Your task to perform on an android device: change text size in settings app Image 0: 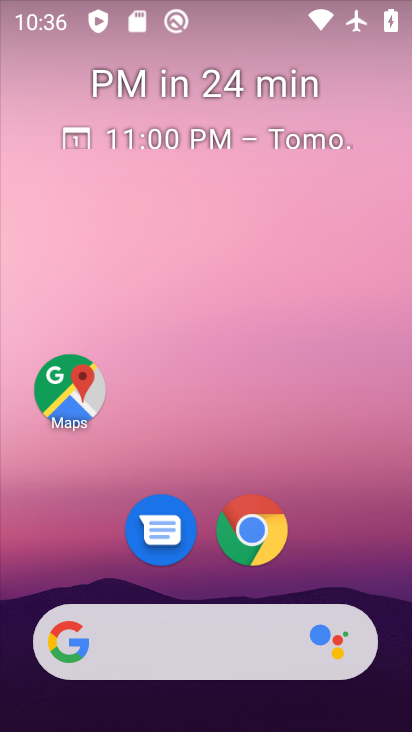
Step 0: drag from (354, 581) to (161, 67)
Your task to perform on an android device: change text size in settings app Image 1: 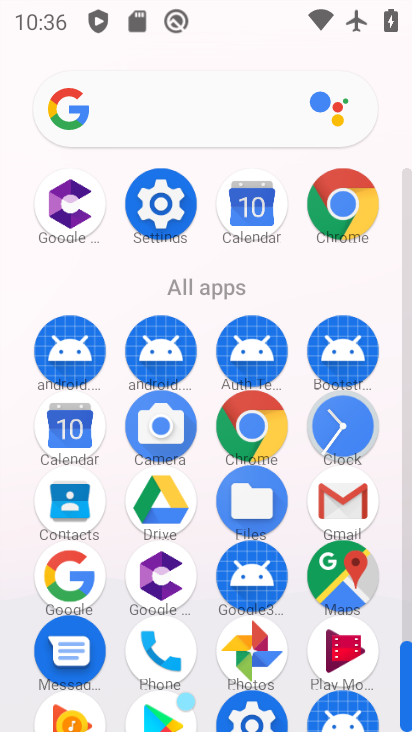
Step 1: click (160, 198)
Your task to perform on an android device: change text size in settings app Image 2: 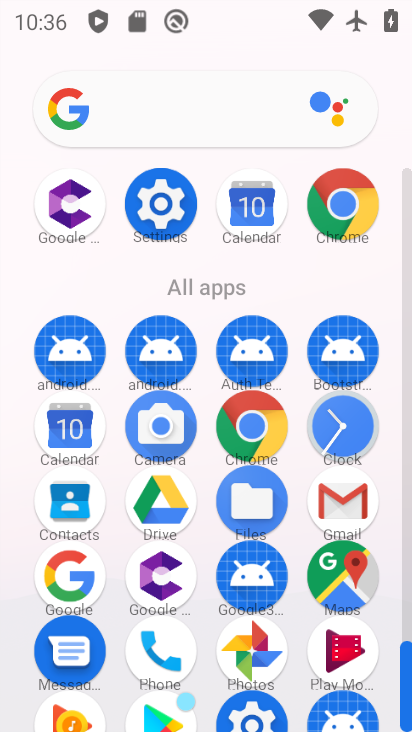
Step 2: click (160, 198)
Your task to perform on an android device: change text size in settings app Image 3: 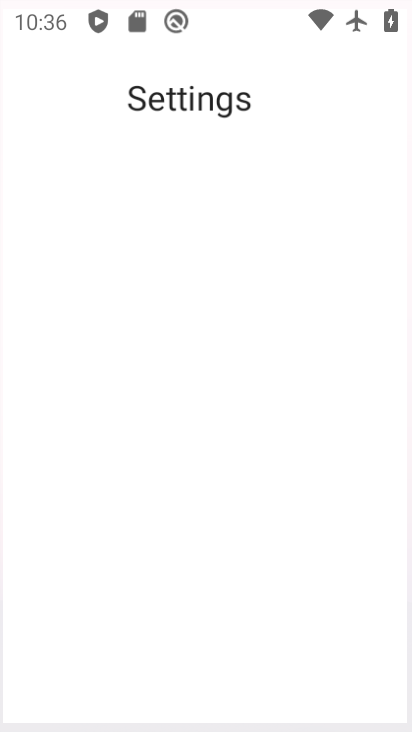
Step 3: click (159, 198)
Your task to perform on an android device: change text size in settings app Image 4: 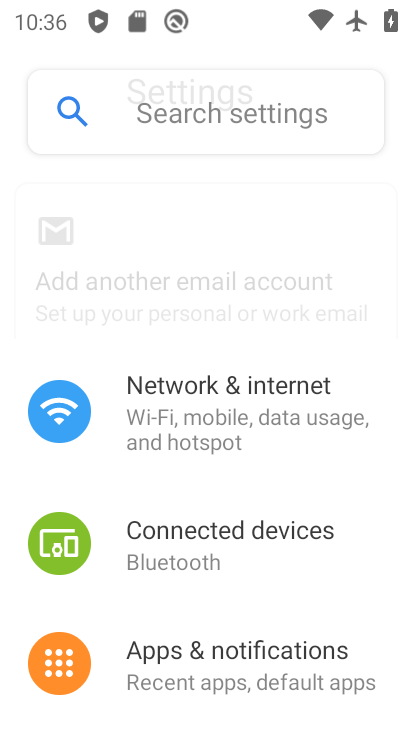
Step 4: click (159, 198)
Your task to perform on an android device: change text size in settings app Image 5: 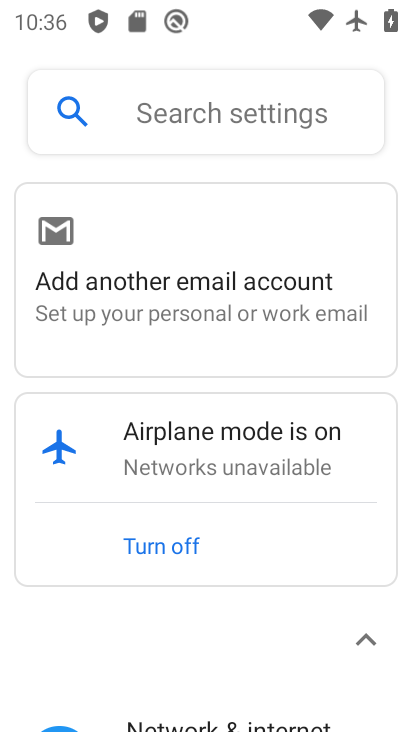
Step 5: drag from (282, 628) to (230, 203)
Your task to perform on an android device: change text size in settings app Image 6: 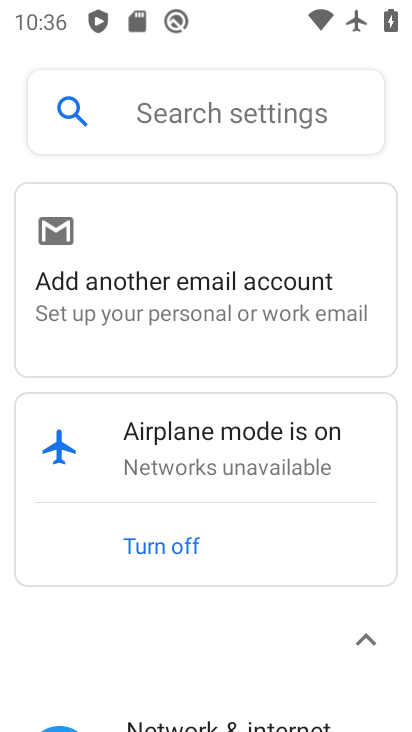
Step 6: drag from (249, 576) to (196, 208)
Your task to perform on an android device: change text size in settings app Image 7: 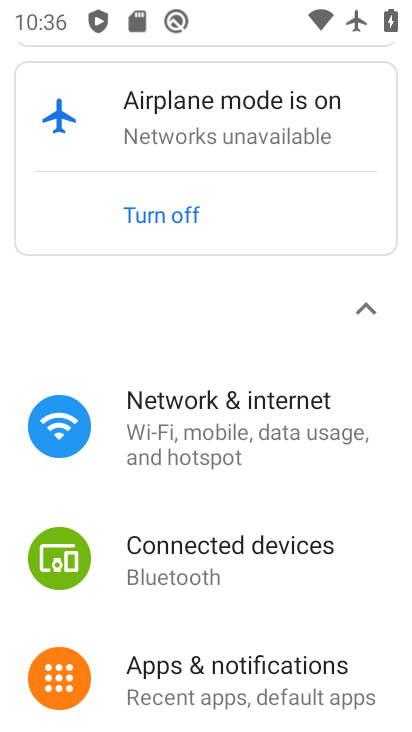
Step 7: drag from (248, 633) to (187, 241)
Your task to perform on an android device: change text size in settings app Image 8: 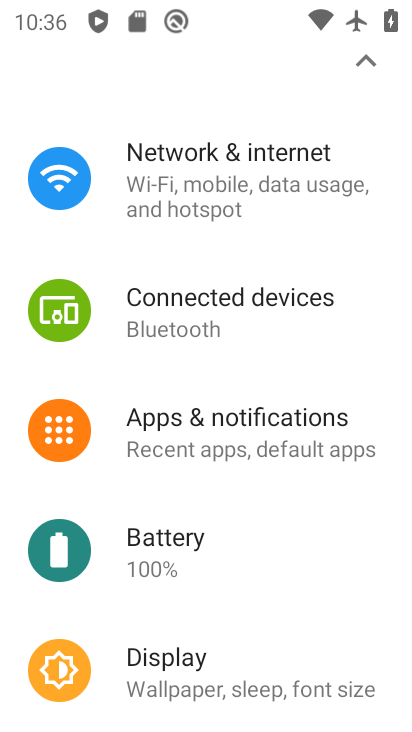
Step 8: drag from (214, 480) to (262, 189)
Your task to perform on an android device: change text size in settings app Image 9: 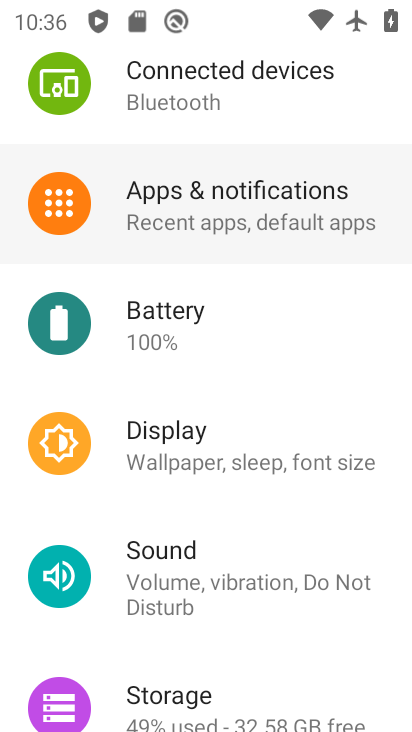
Step 9: drag from (216, 478) to (197, 66)
Your task to perform on an android device: change text size in settings app Image 10: 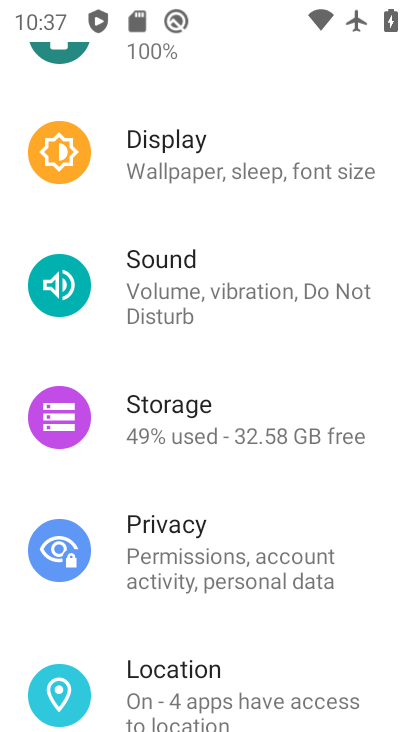
Step 10: click (177, 157)
Your task to perform on an android device: change text size in settings app Image 11: 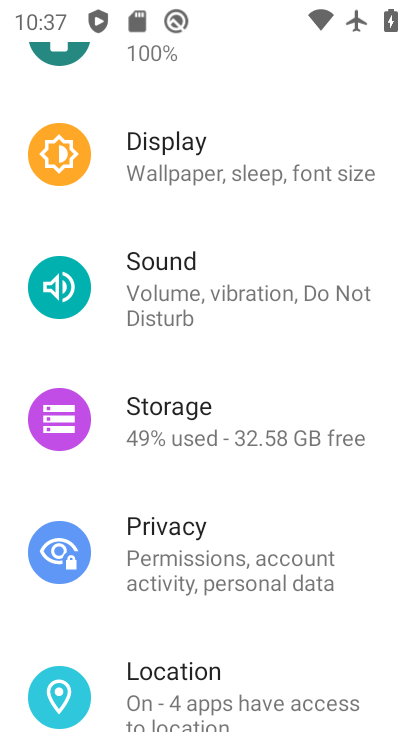
Step 11: click (181, 176)
Your task to perform on an android device: change text size in settings app Image 12: 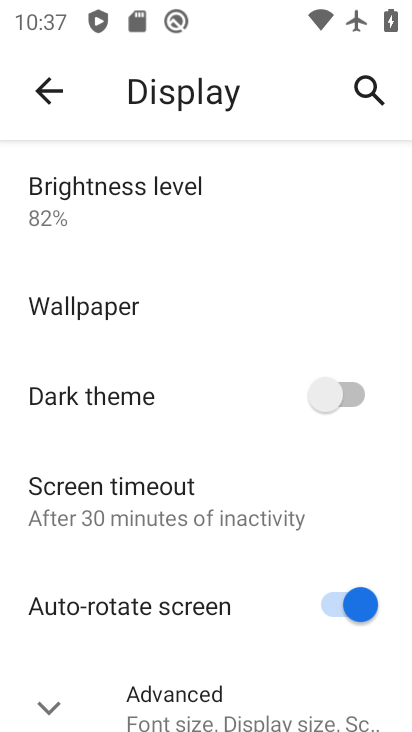
Step 12: drag from (163, 486) to (115, 131)
Your task to perform on an android device: change text size in settings app Image 13: 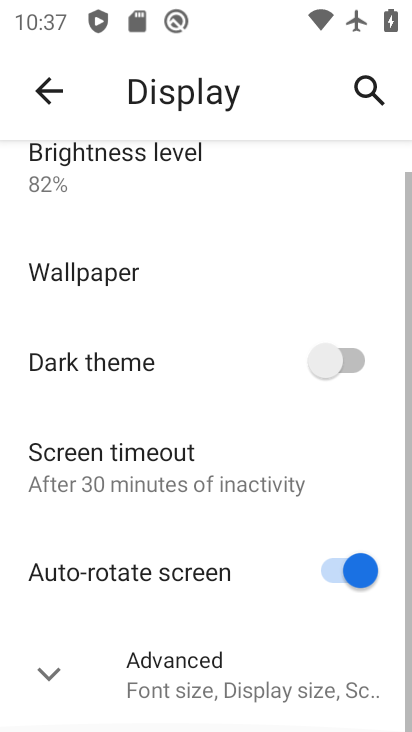
Step 13: drag from (157, 443) to (115, 151)
Your task to perform on an android device: change text size in settings app Image 14: 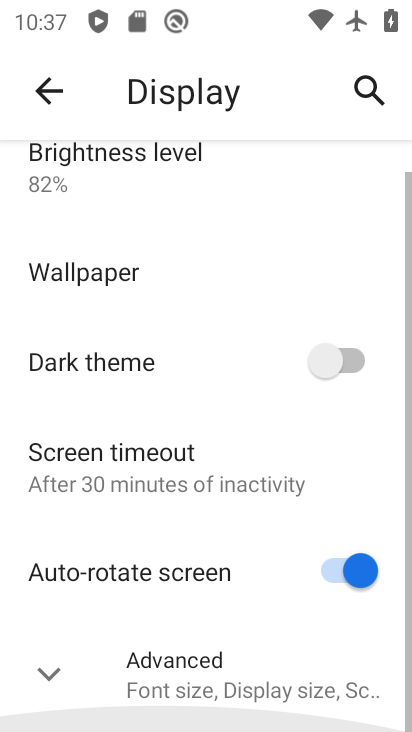
Step 14: drag from (206, 442) to (174, 152)
Your task to perform on an android device: change text size in settings app Image 15: 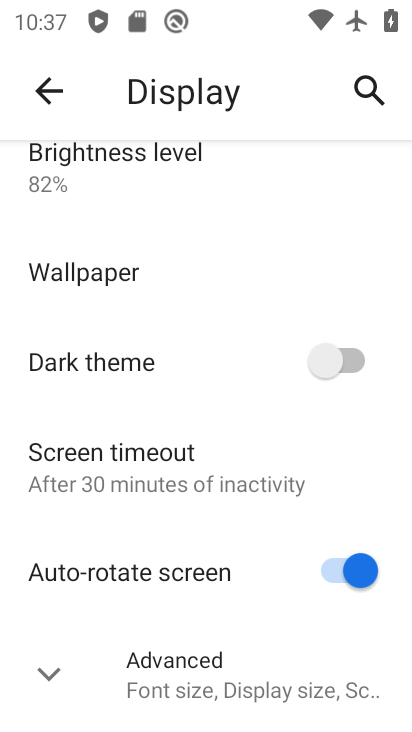
Step 15: click (183, 679)
Your task to perform on an android device: change text size in settings app Image 16: 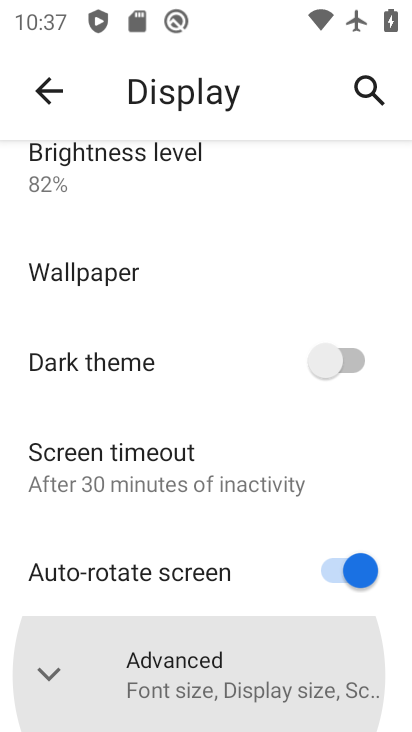
Step 16: click (184, 678)
Your task to perform on an android device: change text size in settings app Image 17: 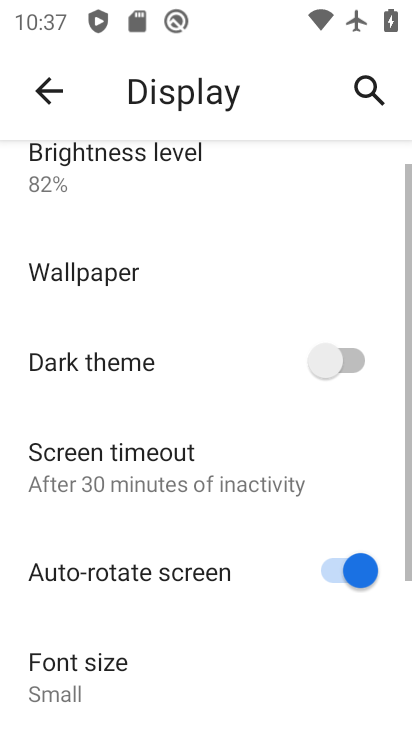
Step 17: drag from (177, 559) to (101, 7)
Your task to perform on an android device: change text size in settings app Image 18: 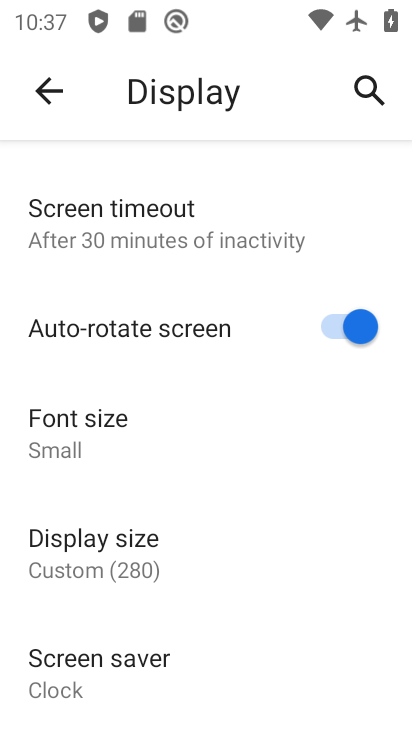
Step 18: drag from (128, 664) to (108, 314)
Your task to perform on an android device: change text size in settings app Image 19: 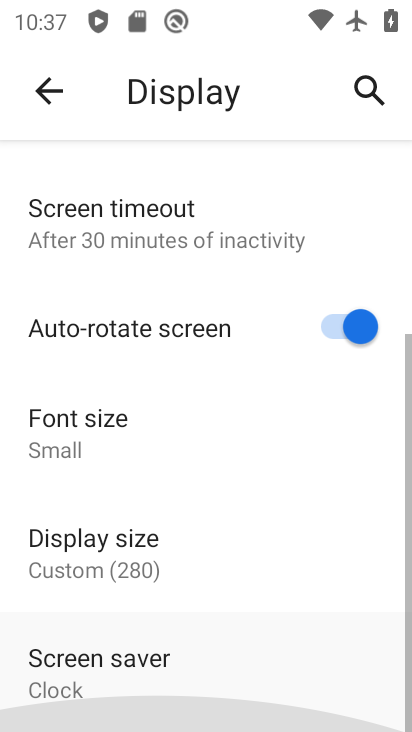
Step 19: drag from (106, 392) to (76, 176)
Your task to perform on an android device: change text size in settings app Image 20: 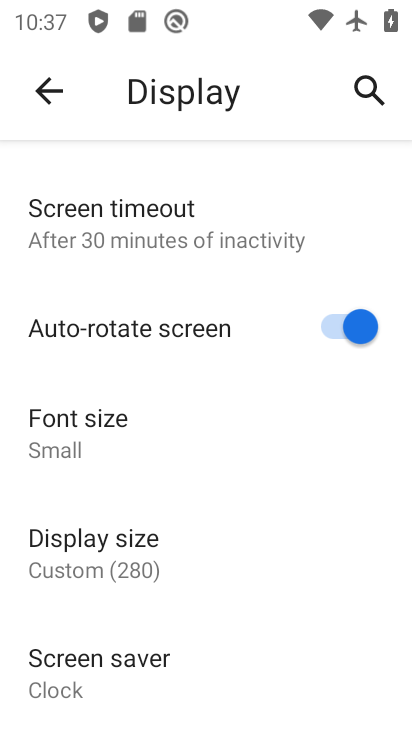
Step 20: click (54, 440)
Your task to perform on an android device: change text size in settings app Image 21: 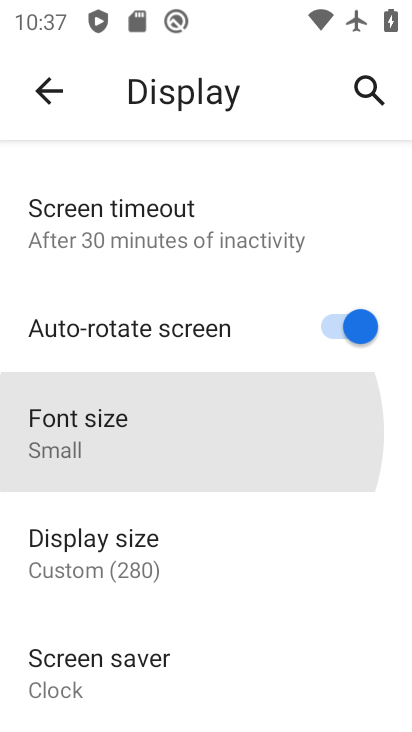
Step 21: click (61, 451)
Your task to perform on an android device: change text size in settings app Image 22: 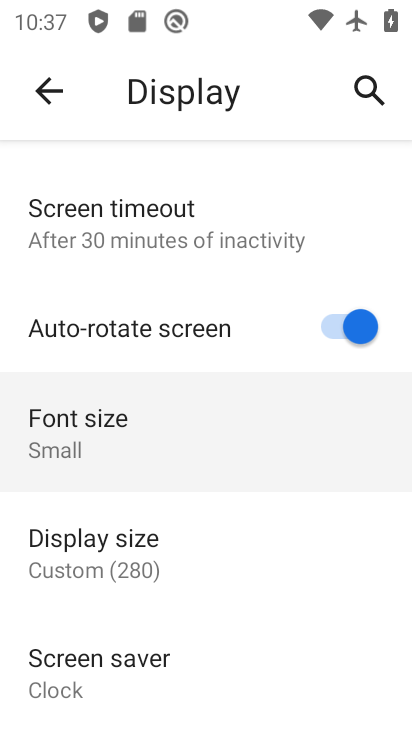
Step 22: click (61, 451)
Your task to perform on an android device: change text size in settings app Image 23: 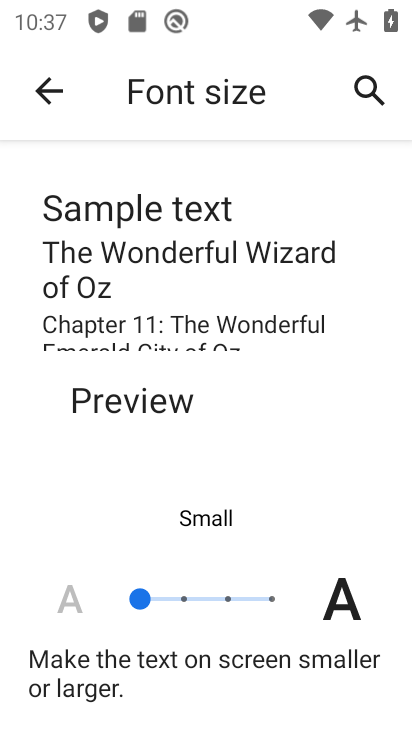
Step 23: click (187, 596)
Your task to perform on an android device: change text size in settings app Image 24: 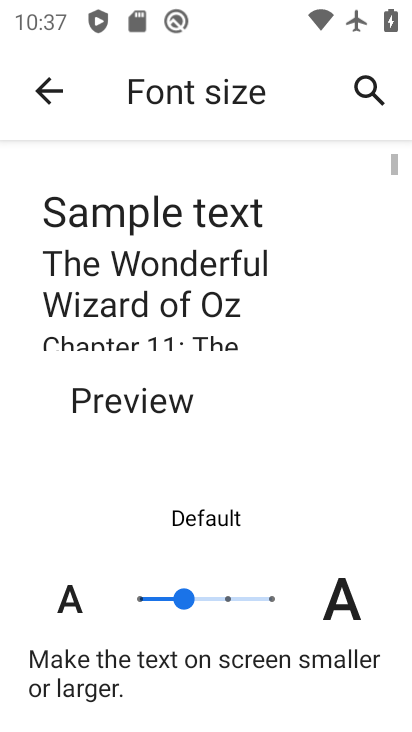
Step 24: click (187, 596)
Your task to perform on an android device: change text size in settings app Image 25: 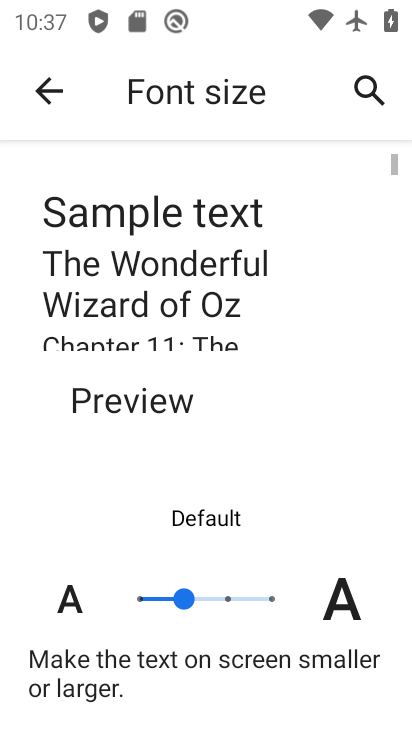
Step 25: click (187, 596)
Your task to perform on an android device: change text size in settings app Image 26: 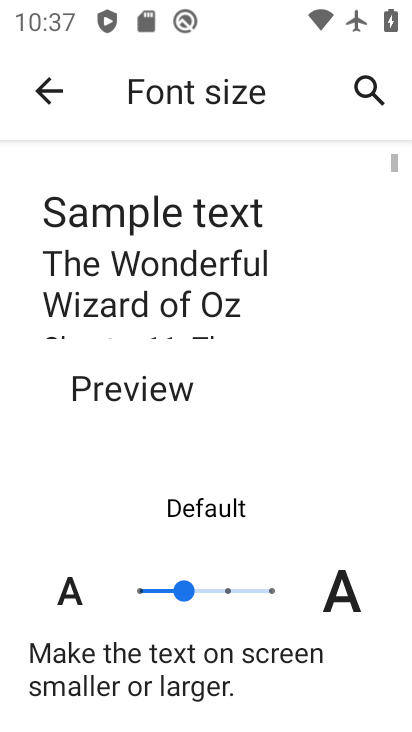
Step 26: click (224, 596)
Your task to perform on an android device: change text size in settings app Image 27: 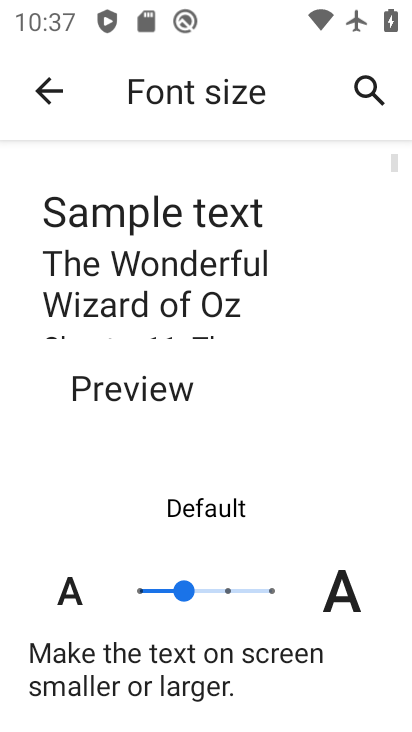
Step 27: click (224, 596)
Your task to perform on an android device: change text size in settings app Image 28: 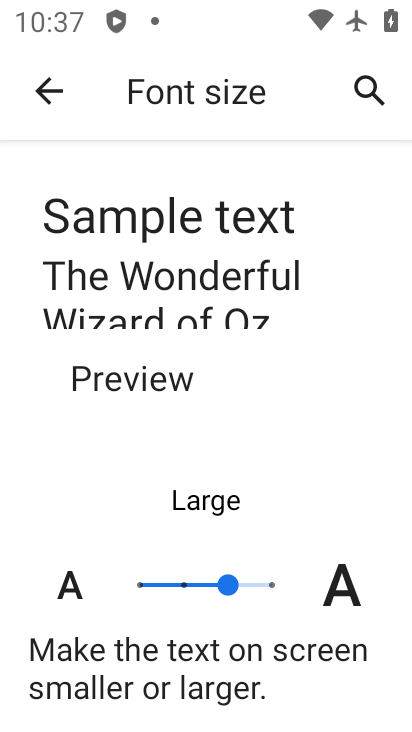
Step 28: task complete